Your task to perform on an android device: change the clock display to digital Image 0: 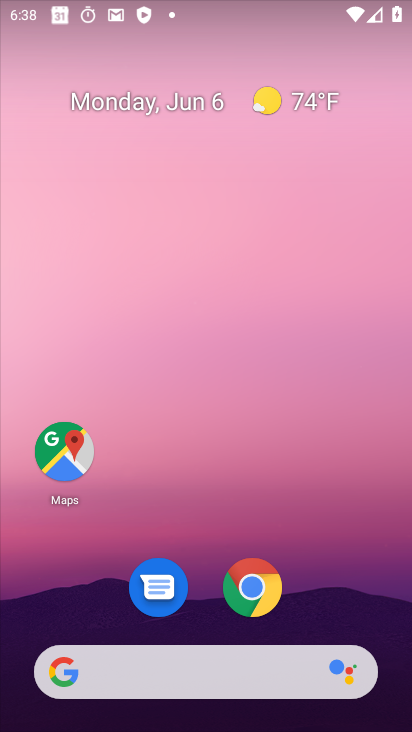
Step 0: drag from (390, 617) to (293, 48)
Your task to perform on an android device: change the clock display to digital Image 1: 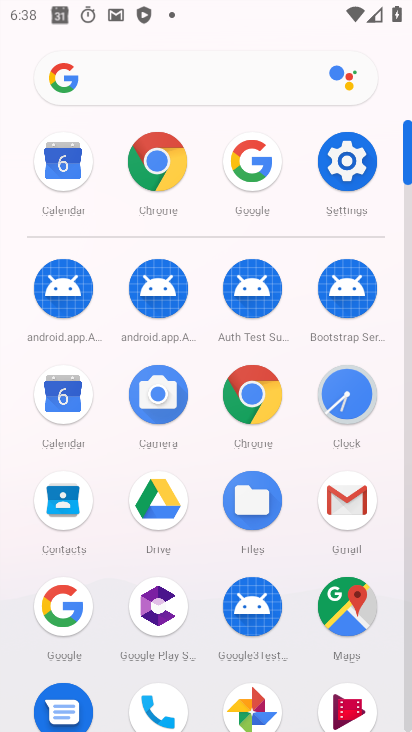
Step 1: click (346, 410)
Your task to perform on an android device: change the clock display to digital Image 2: 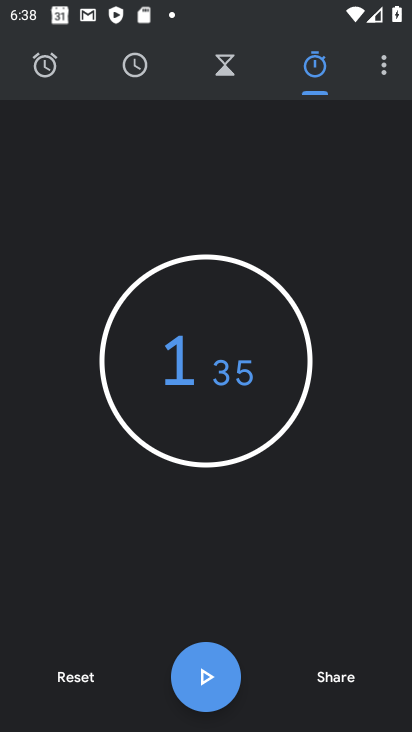
Step 2: click (383, 53)
Your task to perform on an android device: change the clock display to digital Image 3: 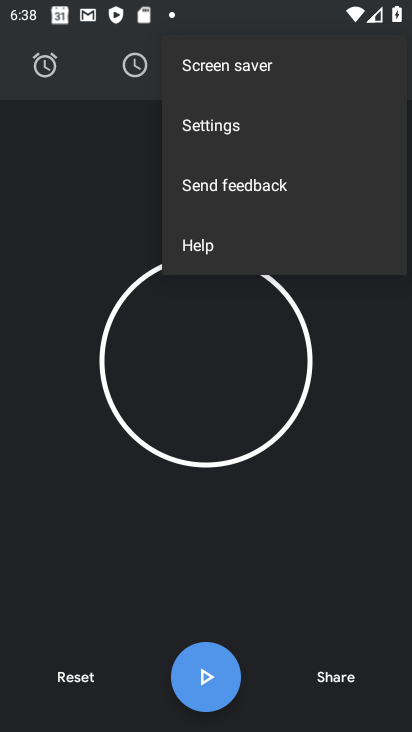
Step 3: click (236, 118)
Your task to perform on an android device: change the clock display to digital Image 4: 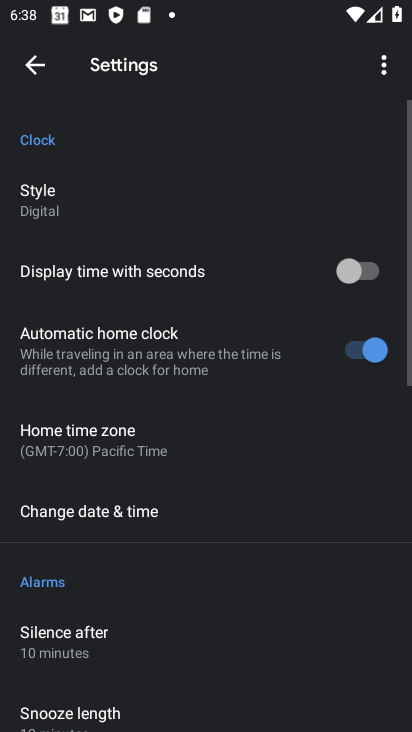
Step 4: click (71, 184)
Your task to perform on an android device: change the clock display to digital Image 5: 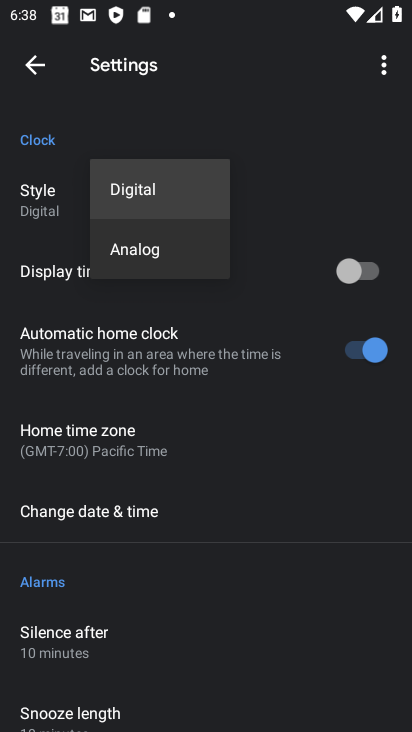
Step 5: click (135, 190)
Your task to perform on an android device: change the clock display to digital Image 6: 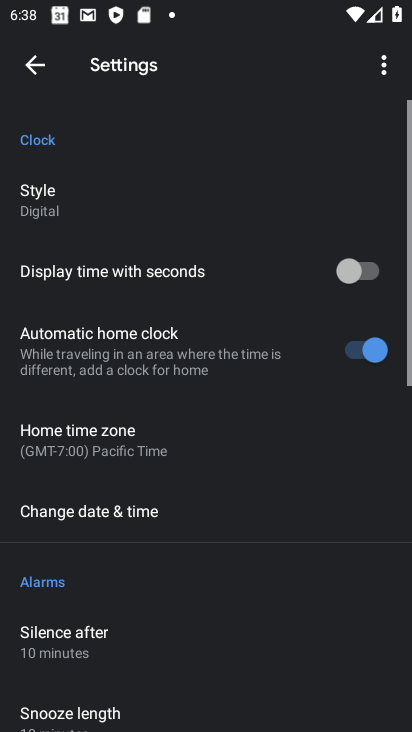
Step 6: task complete